Your task to perform on an android device: turn on priority inbox in the gmail app Image 0: 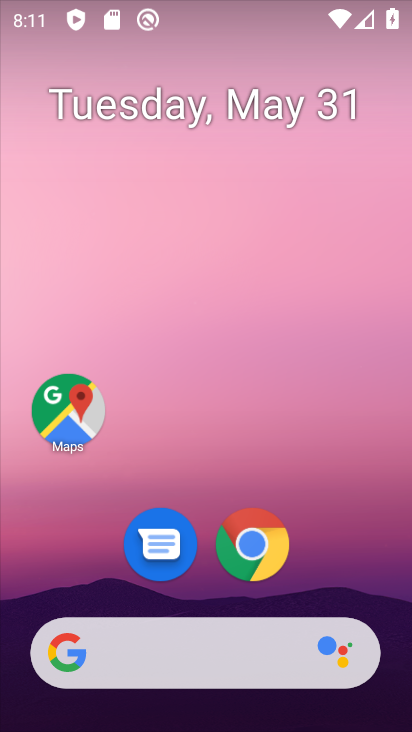
Step 0: drag from (186, 646) to (205, 193)
Your task to perform on an android device: turn on priority inbox in the gmail app Image 1: 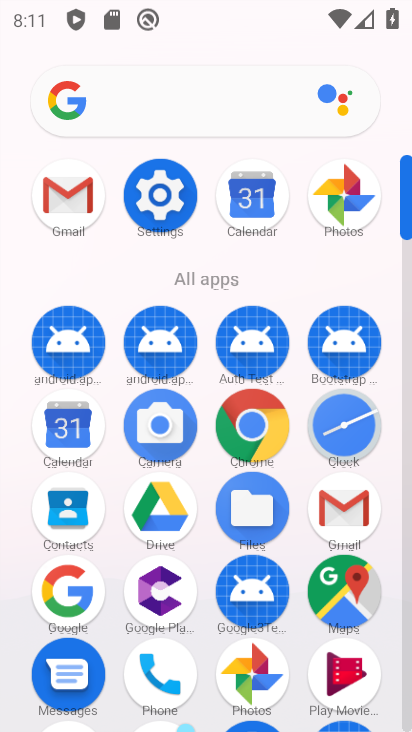
Step 1: click (353, 497)
Your task to perform on an android device: turn on priority inbox in the gmail app Image 2: 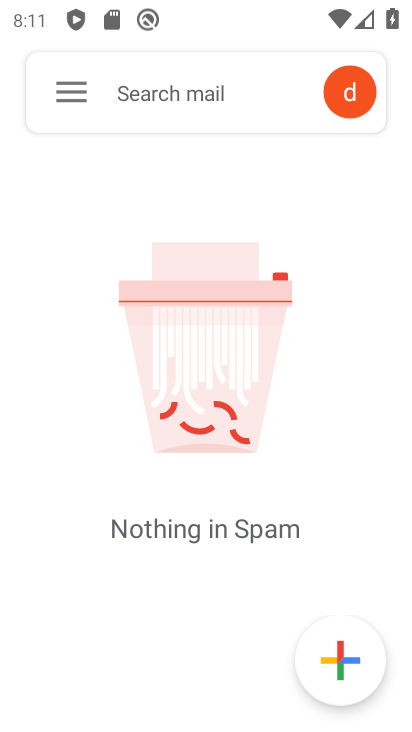
Step 2: click (74, 90)
Your task to perform on an android device: turn on priority inbox in the gmail app Image 3: 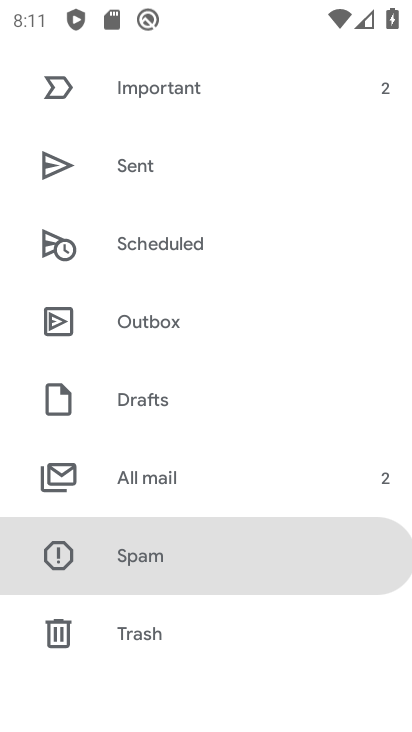
Step 3: drag from (125, 578) to (82, 3)
Your task to perform on an android device: turn on priority inbox in the gmail app Image 4: 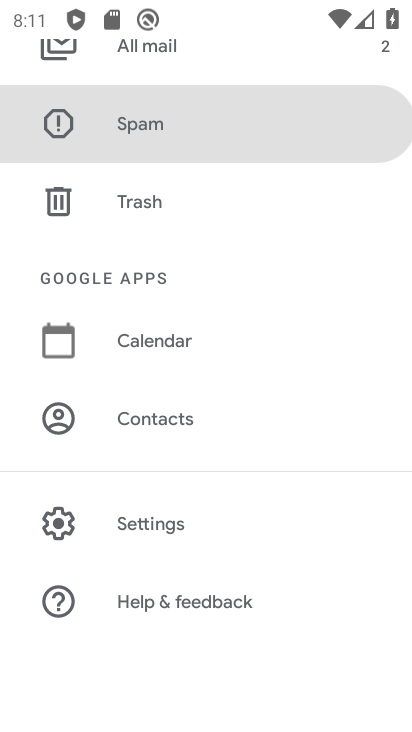
Step 4: click (159, 527)
Your task to perform on an android device: turn on priority inbox in the gmail app Image 5: 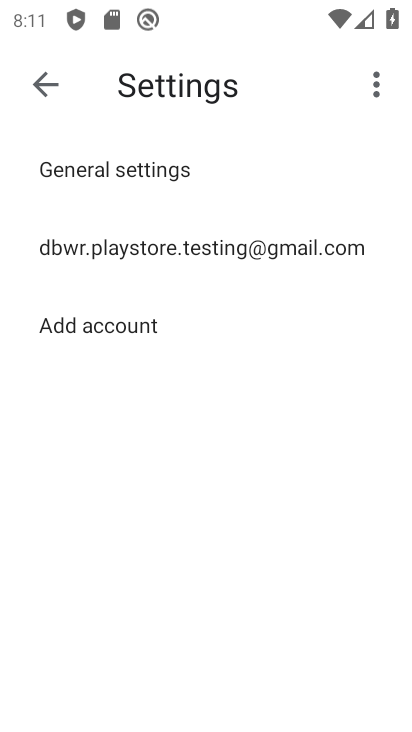
Step 5: click (174, 259)
Your task to perform on an android device: turn on priority inbox in the gmail app Image 6: 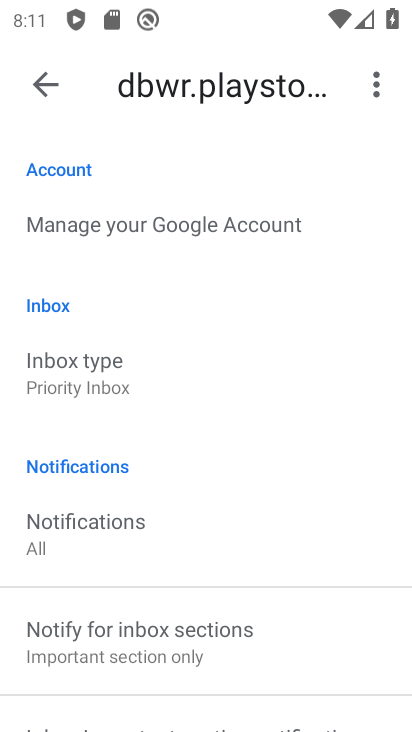
Step 6: click (176, 359)
Your task to perform on an android device: turn on priority inbox in the gmail app Image 7: 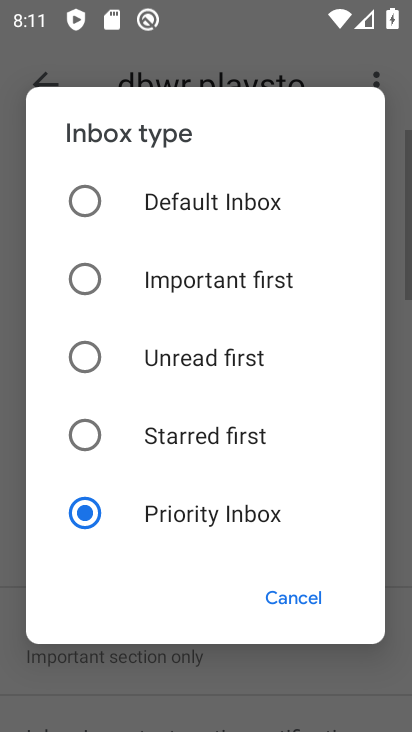
Step 7: click (189, 503)
Your task to perform on an android device: turn on priority inbox in the gmail app Image 8: 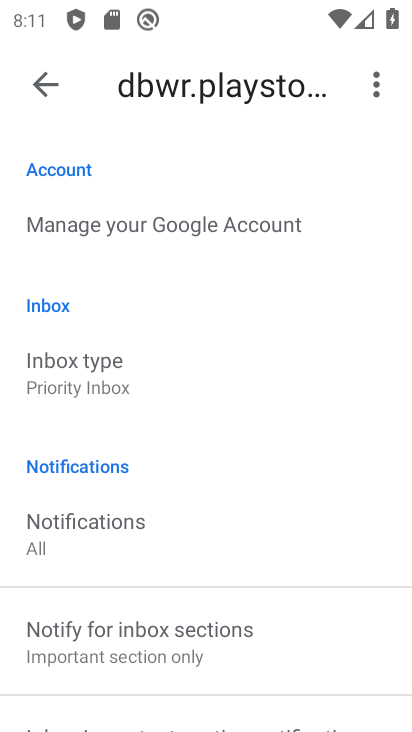
Step 8: task complete